Your task to perform on an android device: open app "Viber Messenger" (install if not already installed) Image 0: 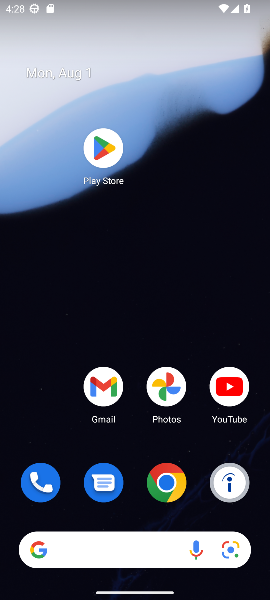
Step 0: press home button
Your task to perform on an android device: open app "Viber Messenger" (install if not already installed) Image 1: 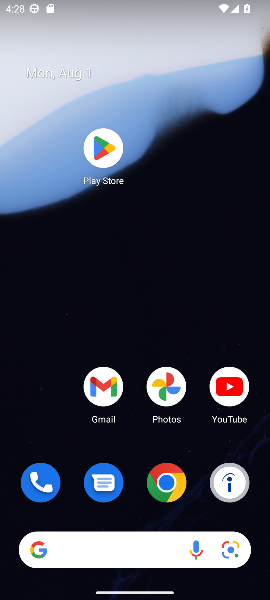
Step 1: click (105, 146)
Your task to perform on an android device: open app "Viber Messenger" (install if not already installed) Image 2: 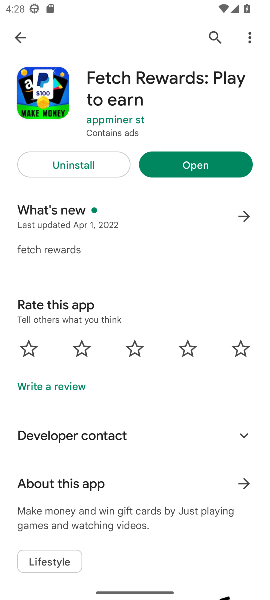
Step 2: click (213, 33)
Your task to perform on an android device: open app "Viber Messenger" (install if not already installed) Image 3: 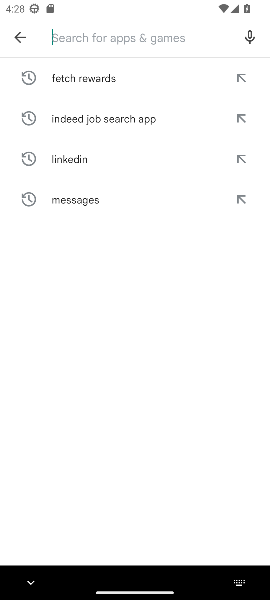
Step 3: type "Viber Messenger"
Your task to perform on an android device: open app "Viber Messenger" (install if not already installed) Image 4: 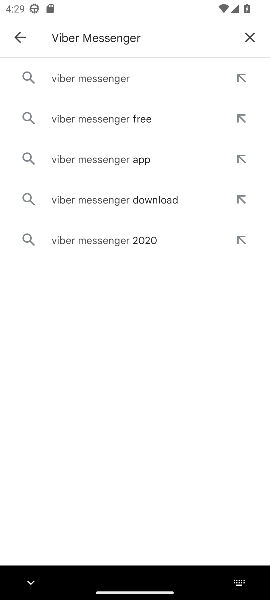
Step 4: click (65, 82)
Your task to perform on an android device: open app "Viber Messenger" (install if not already installed) Image 5: 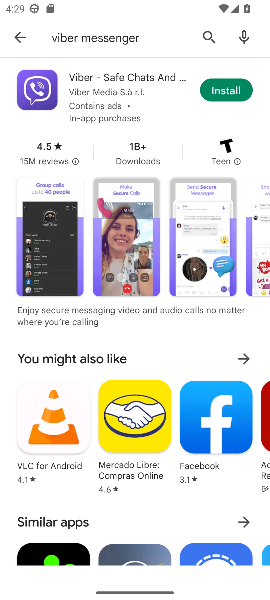
Step 5: click (230, 88)
Your task to perform on an android device: open app "Viber Messenger" (install if not already installed) Image 6: 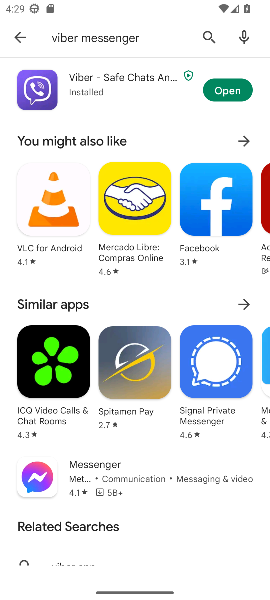
Step 6: click (234, 91)
Your task to perform on an android device: open app "Viber Messenger" (install if not already installed) Image 7: 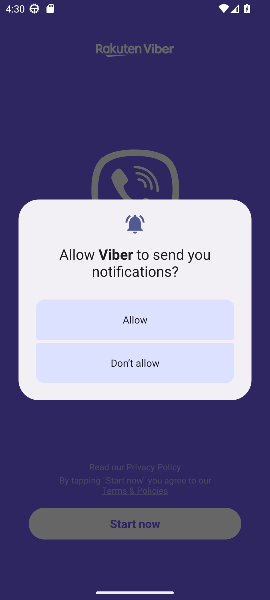
Step 7: click (135, 363)
Your task to perform on an android device: open app "Viber Messenger" (install if not already installed) Image 8: 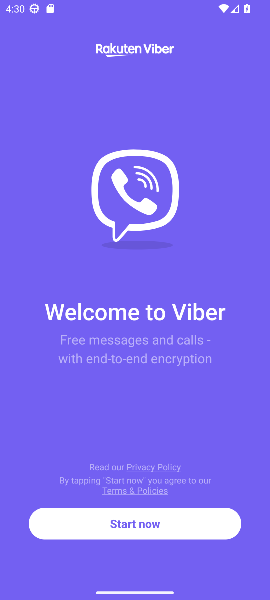
Step 8: task complete